Your task to perform on an android device: see sites visited before in the chrome app Image 0: 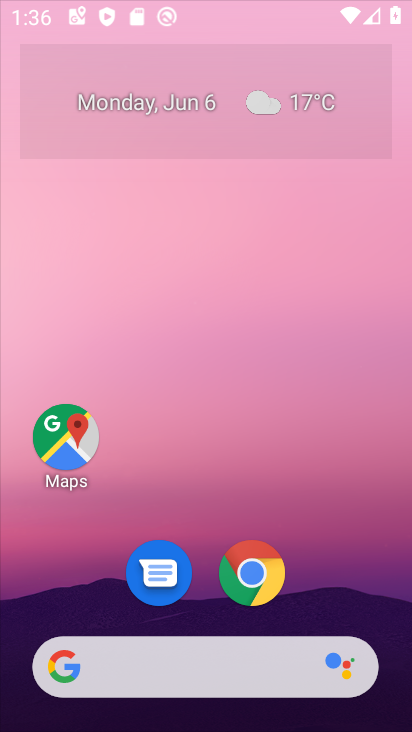
Step 0: press back button
Your task to perform on an android device: see sites visited before in the chrome app Image 1: 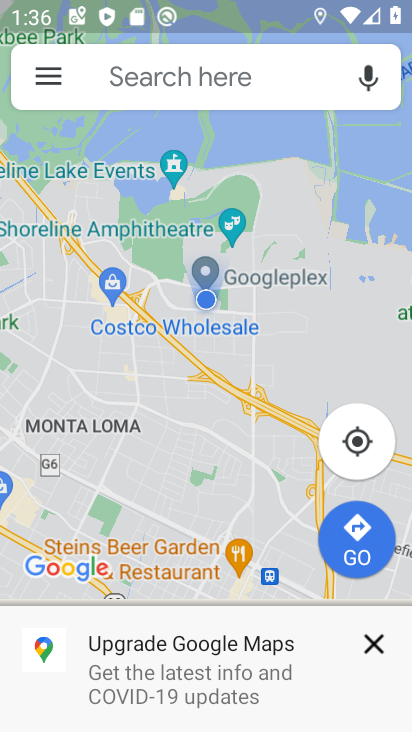
Step 1: press back button
Your task to perform on an android device: see sites visited before in the chrome app Image 2: 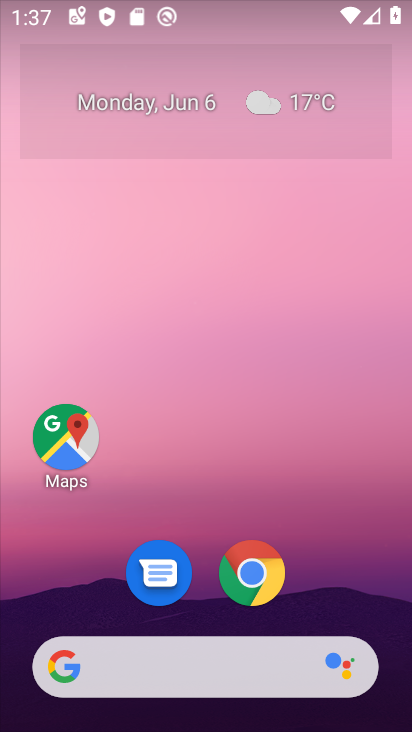
Step 2: click (242, 573)
Your task to perform on an android device: see sites visited before in the chrome app Image 3: 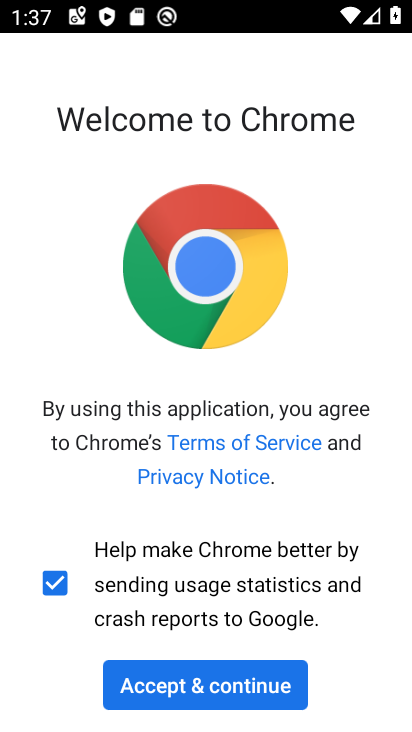
Step 3: click (195, 690)
Your task to perform on an android device: see sites visited before in the chrome app Image 4: 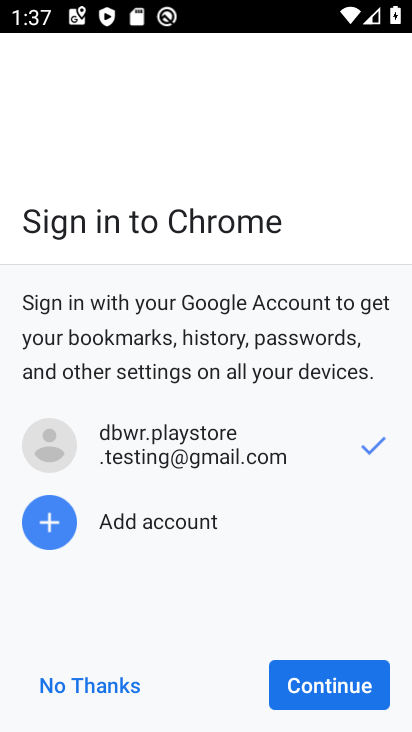
Step 4: click (115, 677)
Your task to perform on an android device: see sites visited before in the chrome app Image 5: 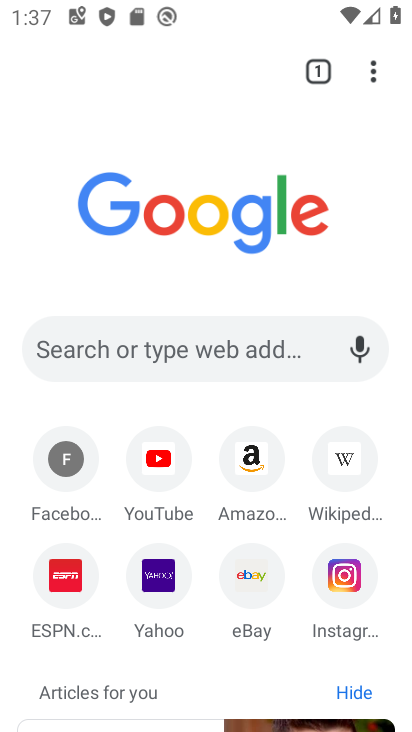
Step 5: task complete